Your task to perform on an android device: Open the stopwatch Image 0: 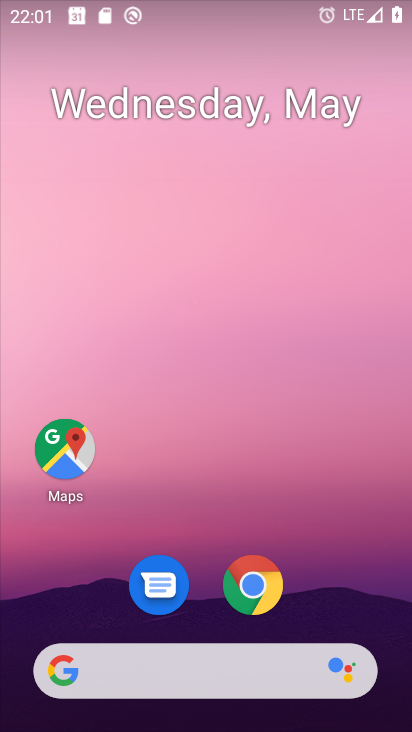
Step 0: drag from (268, 469) to (243, 24)
Your task to perform on an android device: Open the stopwatch Image 1: 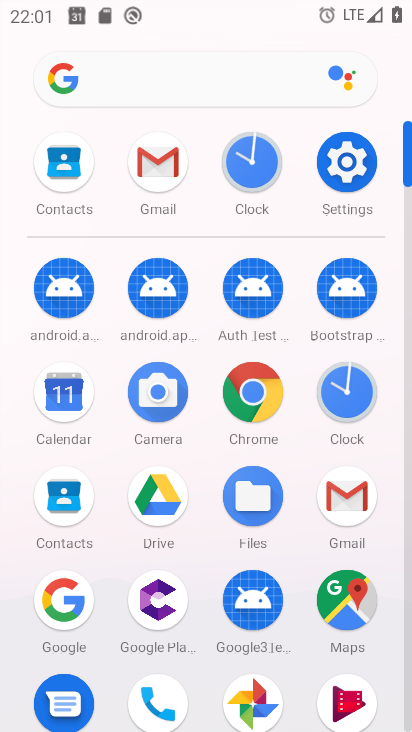
Step 1: click (366, 382)
Your task to perform on an android device: Open the stopwatch Image 2: 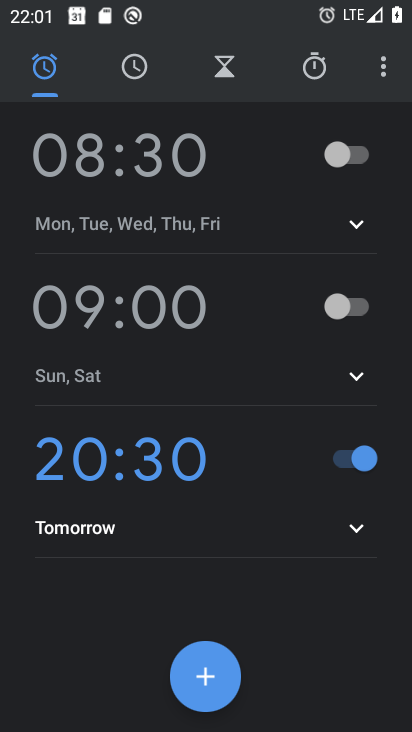
Step 2: click (321, 70)
Your task to perform on an android device: Open the stopwatch Image 3: 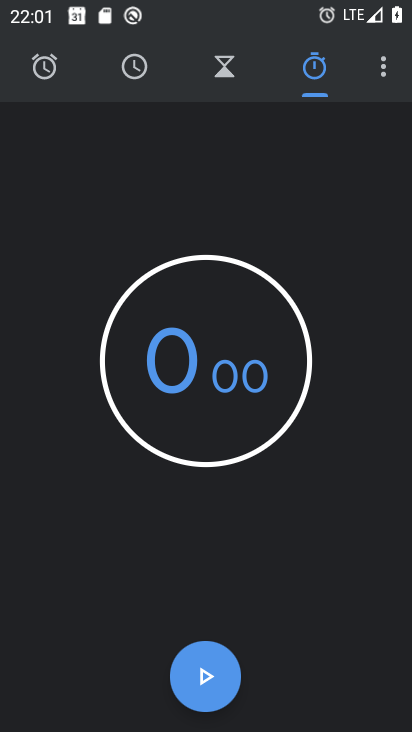
Step 3: task complete